Your task to perform on an android device: Go to Google Image 0: 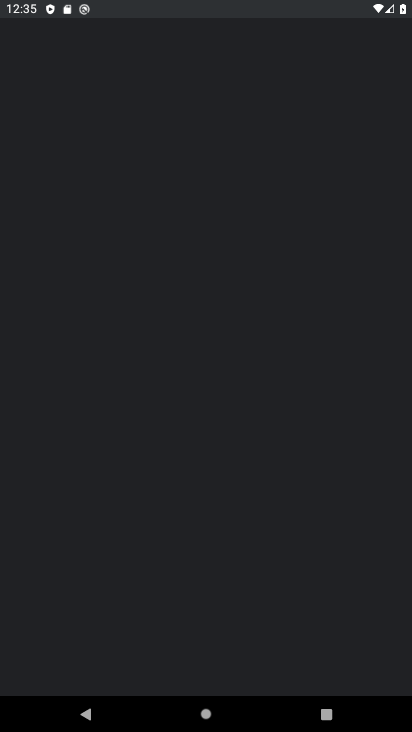
Step 0: drag from (212, 328) to (212, 232)
Your task to perform on an android device: Go to Google Image 1: 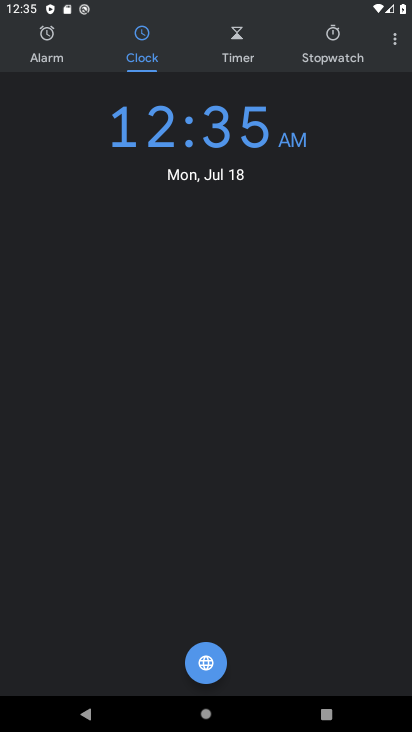
Step 1: press back button
Your task to perform on an android device: Go to Google Image 2: 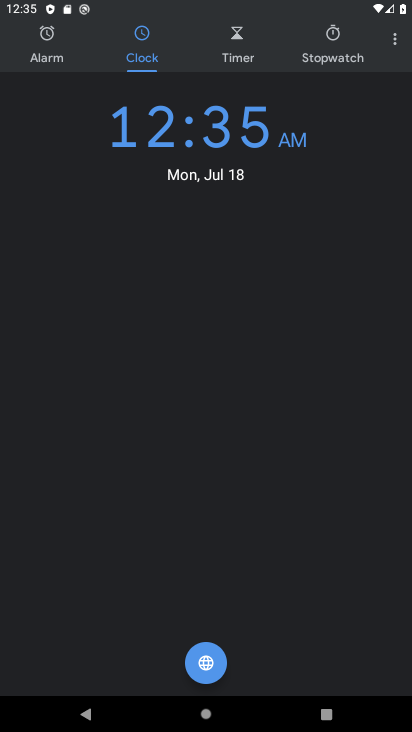
Step 2: press back button
Your task to perform on an android device: Go to Google Image 3: 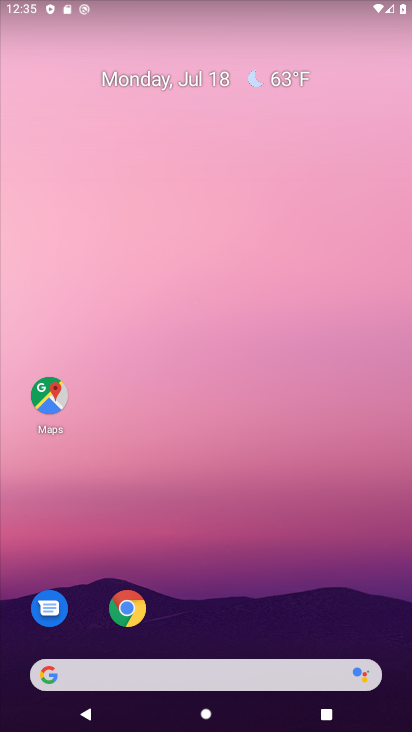
Step 3: drag from (248, 649) to (229, 92)
Your task to perform on an android device: Go to Google Image 4: 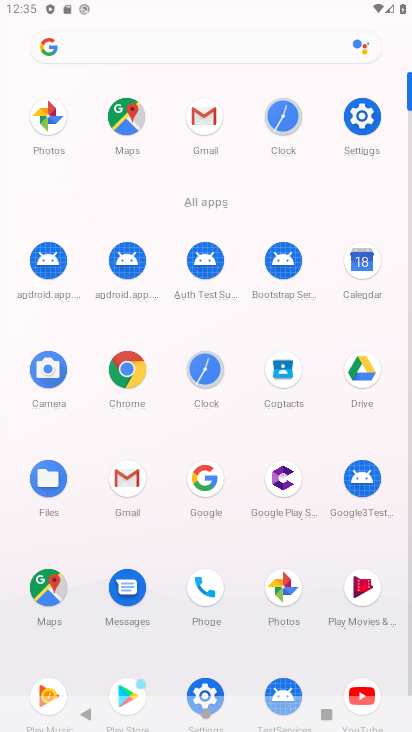
Step 4: drag from (260, 360) to (226, 93)
Your task to perform on an android device: Go to Google Image 5: 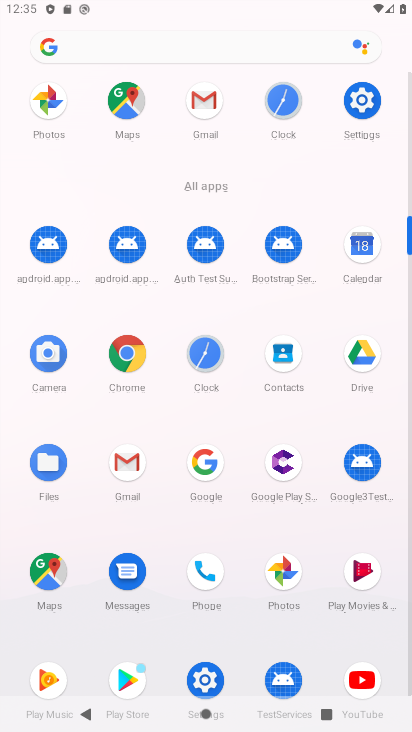
Step 5: click (201, 467)
Your task to perform on an android device: Go to Google Image 6: 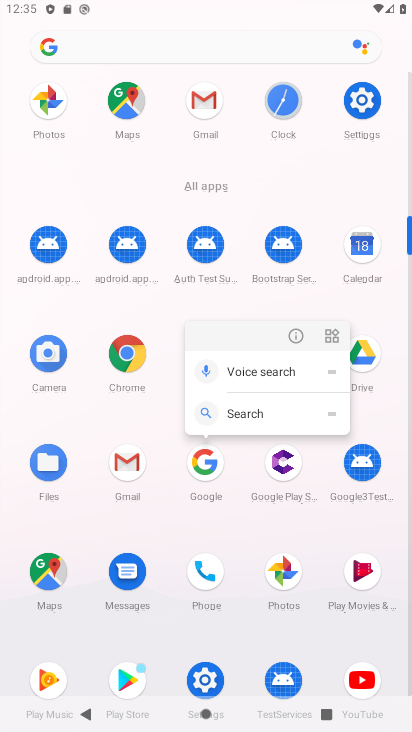
Step 6: click (205, 467)
Your task to perform on an android device: Go to Google Image 7: 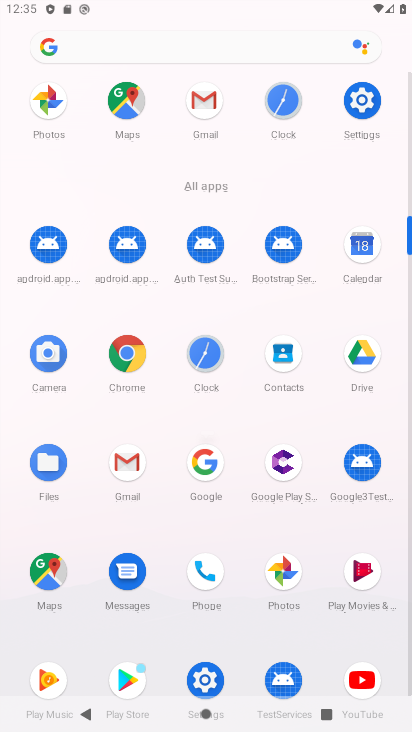
Step 7: click (206, 468)
Your task to perform on an android device: Go to Google Image 8: 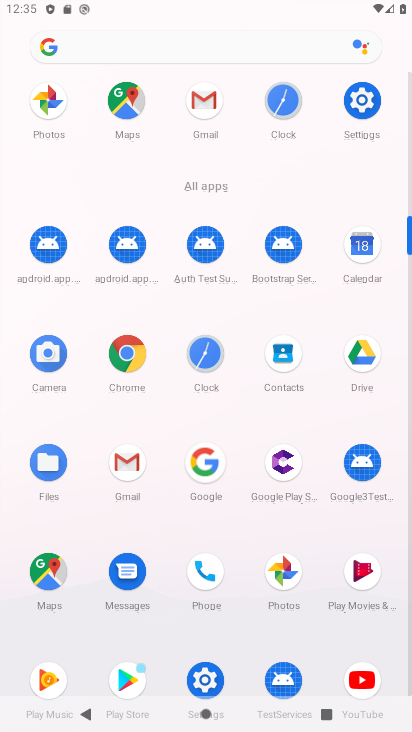
Step 8: click (205, 469)
Your task to perform on an android device: Go to Google Image 9: 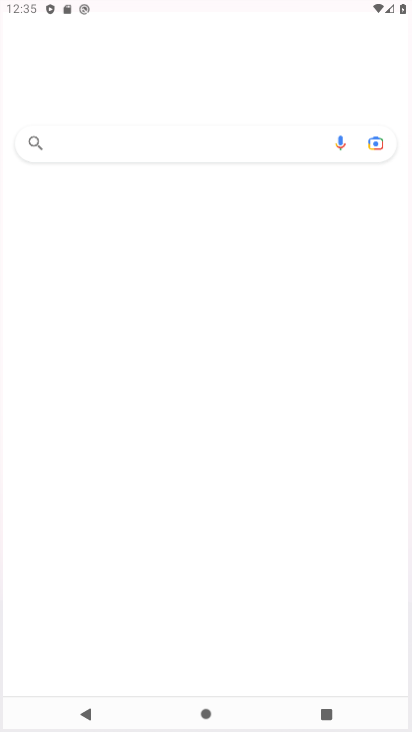
Step 9: click (205, 469)
Your task to perform on an android device: Go to Google Image 10: 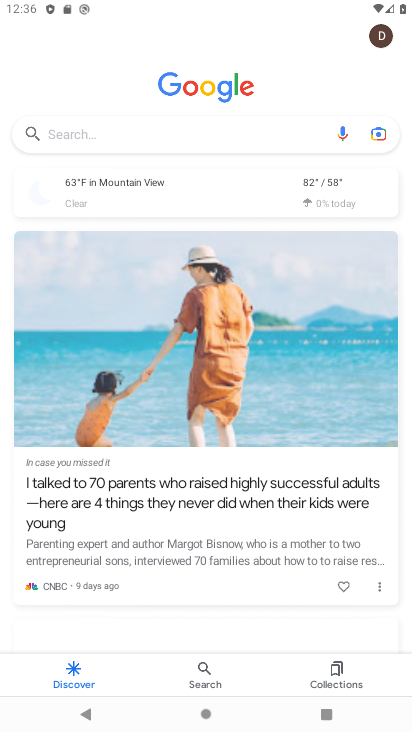
Step 10: task complete